Your task to perform on an android device: open a bookmark in the chrome app Image 0: 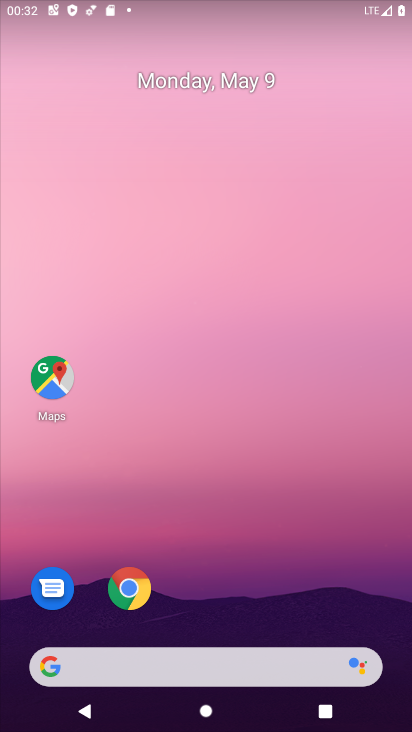
Step 0: click (127, 584)
Your task to perform on an android device: open a bookmark in the chrome app Image 1: 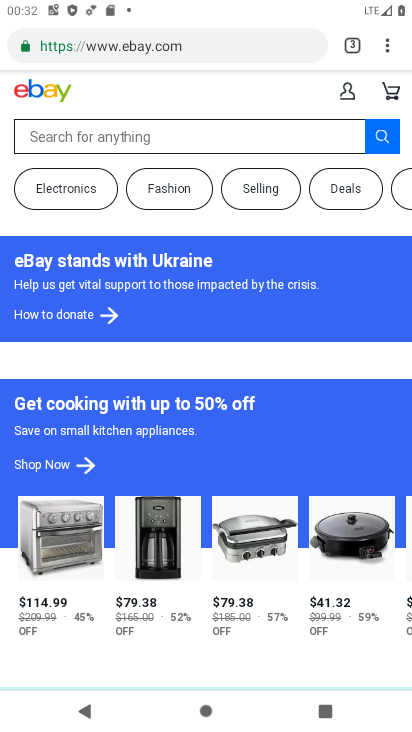
Step 1: click (383, 38)
Your task to perform on an android device: open a bookmark in the chrome app Image 2: 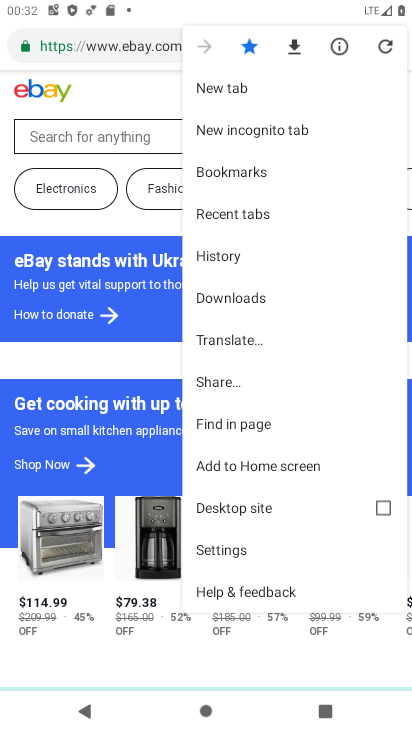
Step 2: click (232, 170)
Your task to perform on an android device: open a bookmark in the chrome app Image 3: 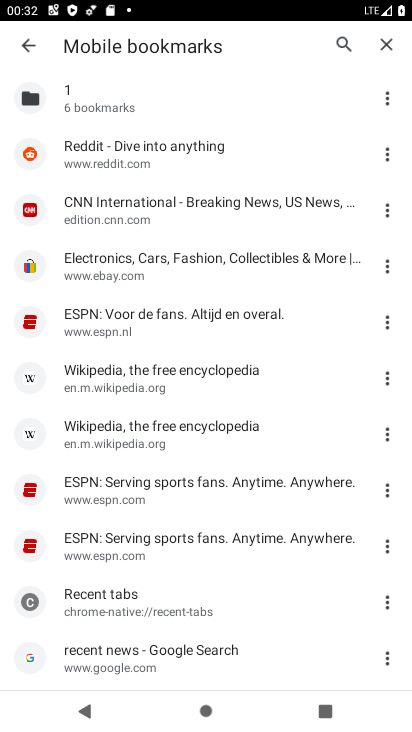
Step 3: task complete